Your task to perform on an android device: turn off priority inbox in the gmail app Image 0: 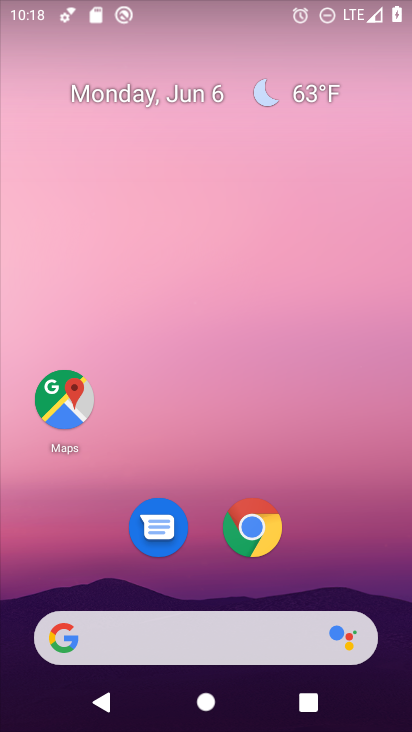
Step 0: drag from (367, 568) to (377, 233)
Your task to perform on an android device: turn off priority inbox in the gmail app Image 1: 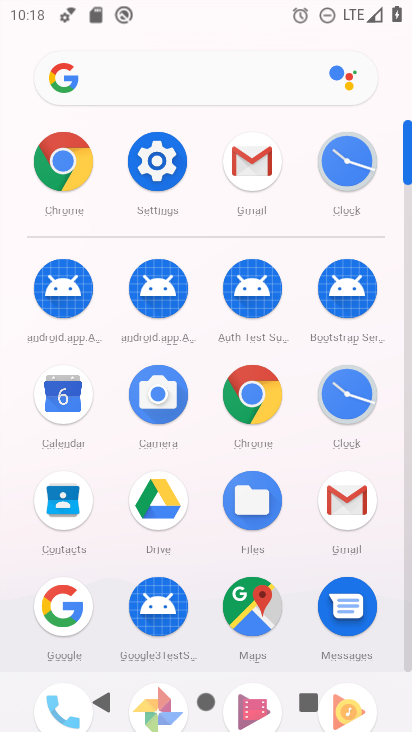
Step 1: click (342, 495)
Your task to perform on an android device: turn off priority inbox in the gmail app Image 2: 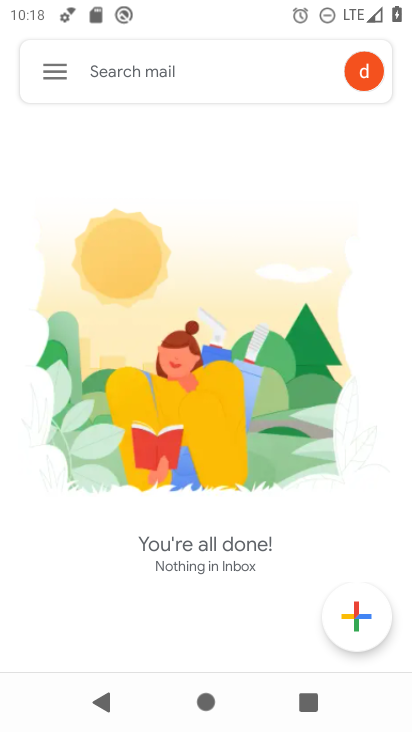
Step 2: click (59, 76)
Your task to perform on an android device: turn off priority inbox in the gmail app Image 3: 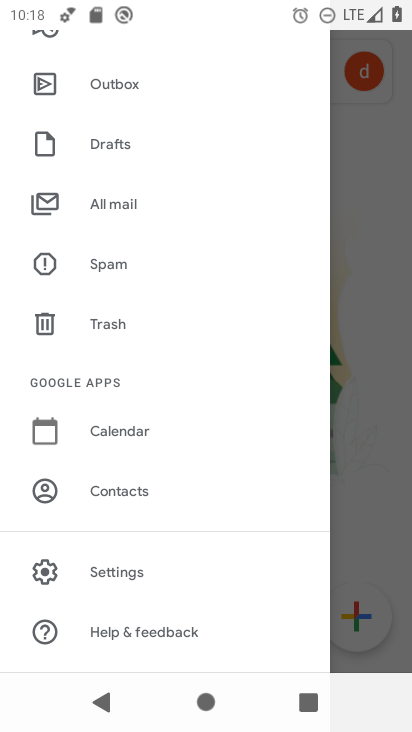
Step 3: drag from (245, 216) to (249, 300)
Your task to perform on an android device: turn off priority inbox in the gmail app Image 4: 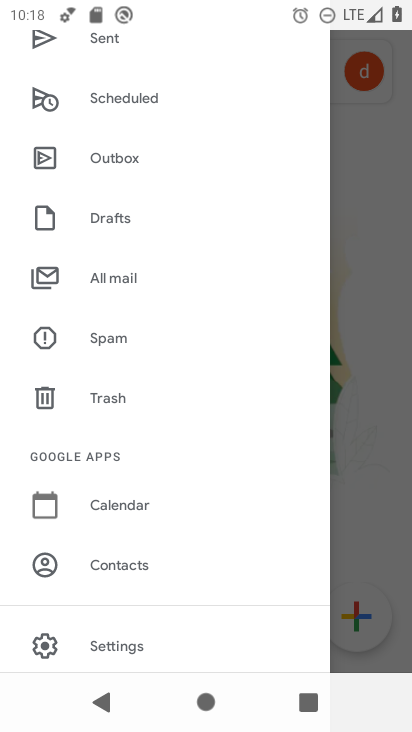
Step 4: drag from (256, 185) to (251, 284)
Your task to perform on an android device: turn off priority inbox in the gmail app Image 5: 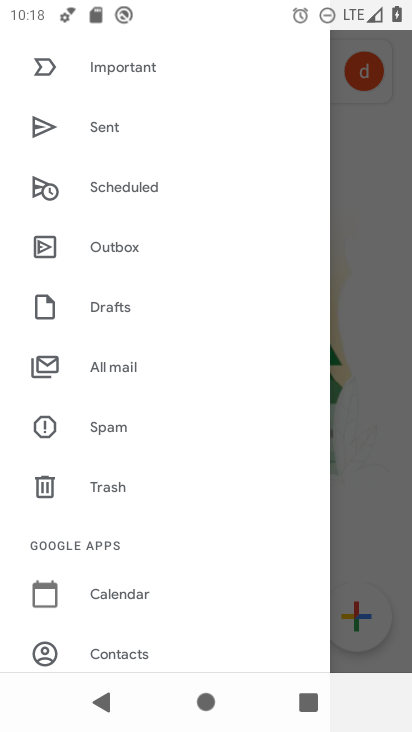
Step 5: drag from (242, 176) to (246, 279)
Your task to perform on an android device: turn off priority inbox in the gmail app Image 6: 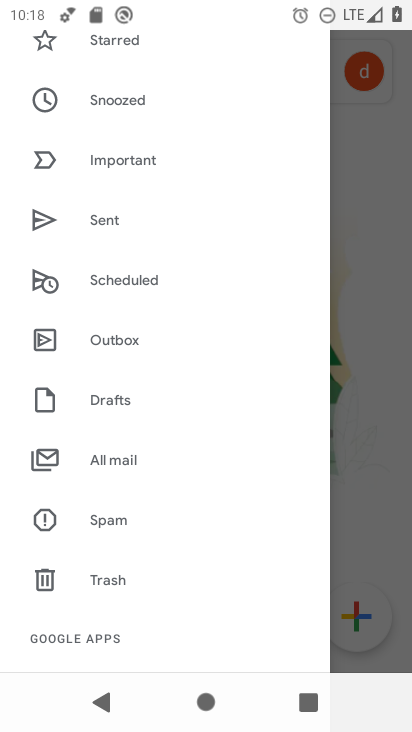
Step 6: drag from (260, 169) to (267, 334)
Your task to perform on an android device: turn off priority inbox in the gmail app Image 7: 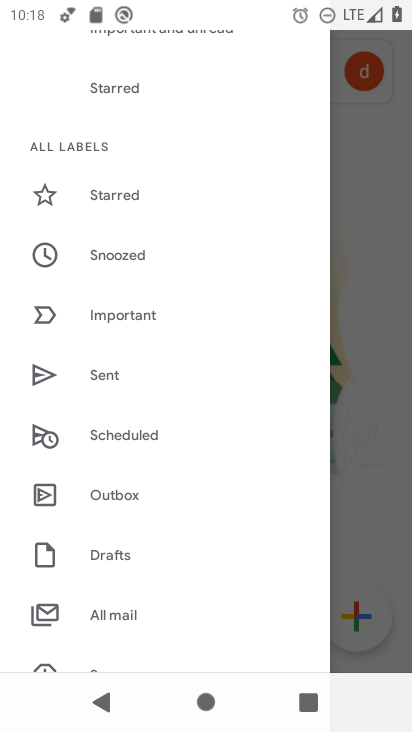
Step 7: drag from (254, 180) to (254, 287)
Your task to perform on an android device: turn off priority inbox in the gmail app Image 8: 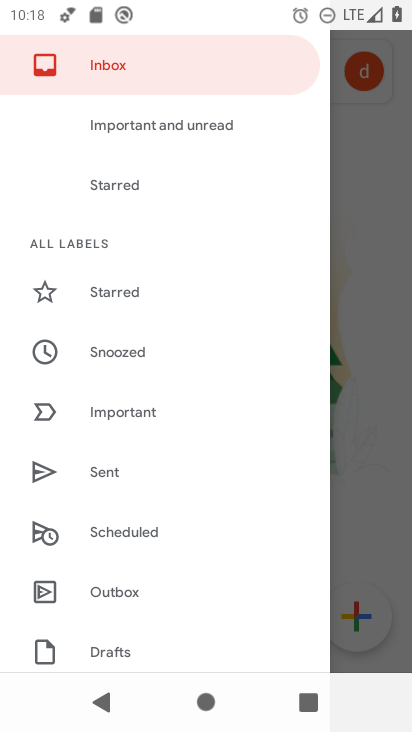
Step 8: drag from (243, 329) to (246, 244)
Your task to perform on an android device: turn off priority inbox in the gmail app Image 9: 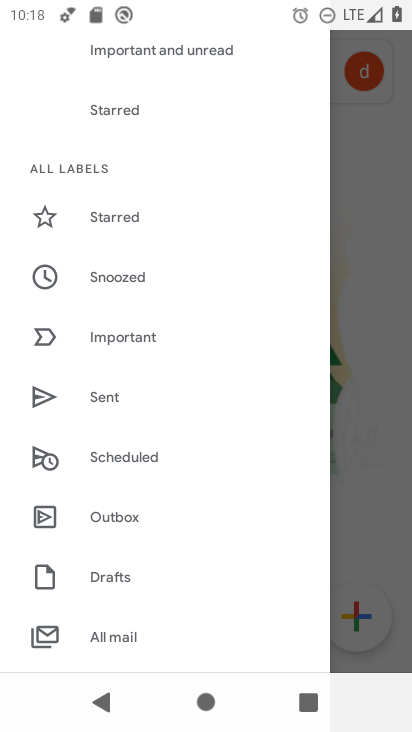
Step 9: drag from (258, 430) to (259, 293)
Your task to perform on an android device: turn off priority inbox in the gmail app Image 10: 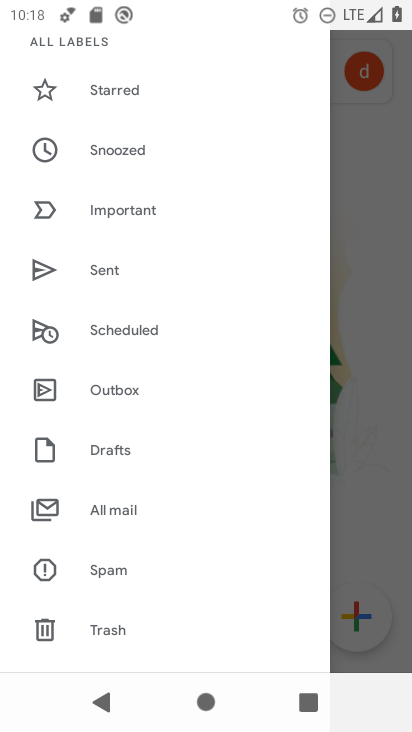
Step 10: drag from (254, 491) to (254, 335)
Your task to perform on an android device: turn off priority inbox in the gmail app Image 11: 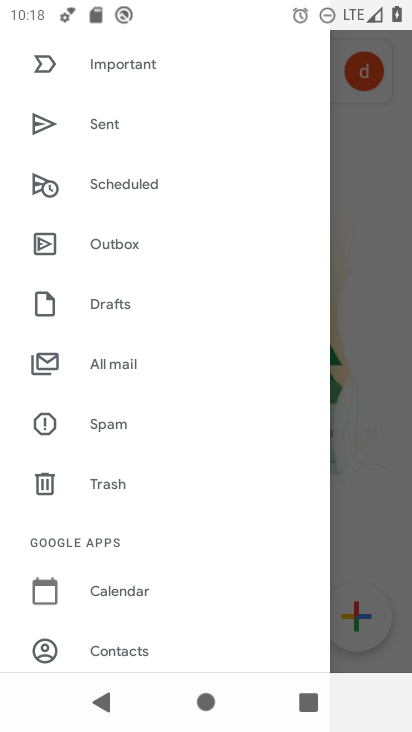
Step 11: drag from (251, 502) to (250, 373)
Your task to perform on an android device: turn off priority inbox in the gmail app Image 12: 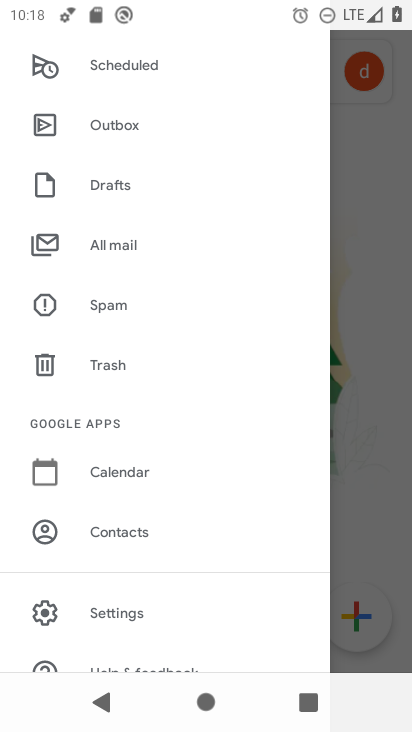
Step 12: drag from (249, 542) to (251, 395)
Your task to perform on an android device: turn off priority inbox in the gmail app Image 13: 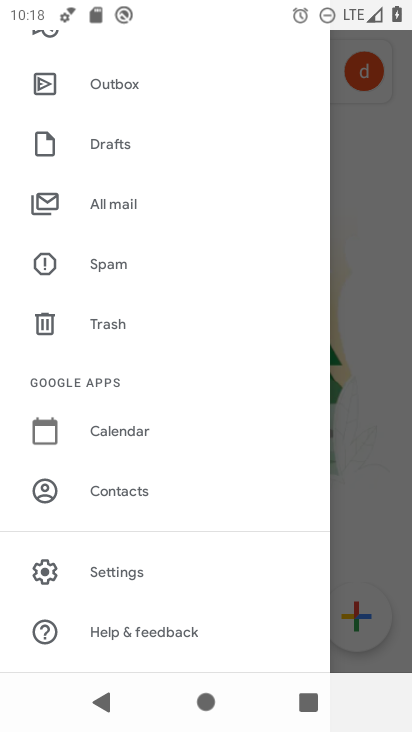
Step 13: click (196, 575)
Your task to perform on an android device: turn off priority inbox in the gmail app Image 14: 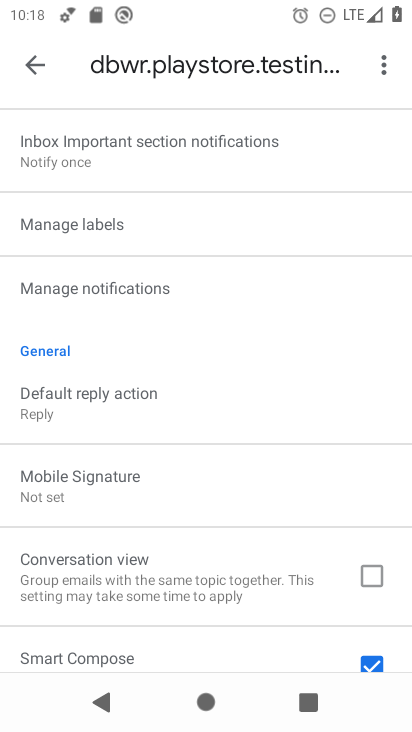
Step 14: drag from (283, 329) to (283, 404)
Your task to perform on an android device: turn off priority inbox in the gmail app Image 15: 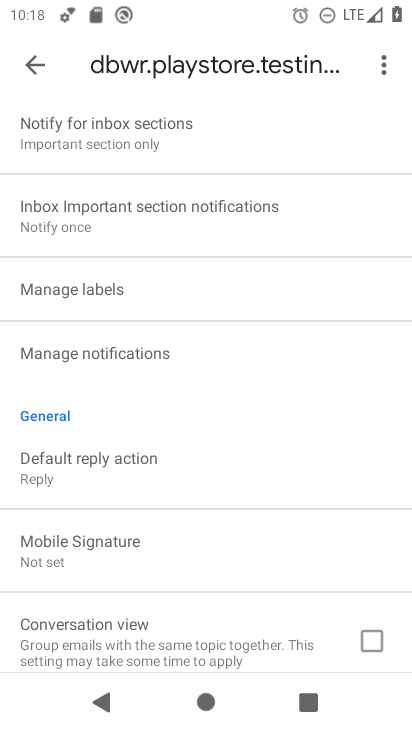
Step 15: drag from (286, 271) to (286, 381)
Your task to perform on an android device: turn off priority inbox in the gmail app Image 16: 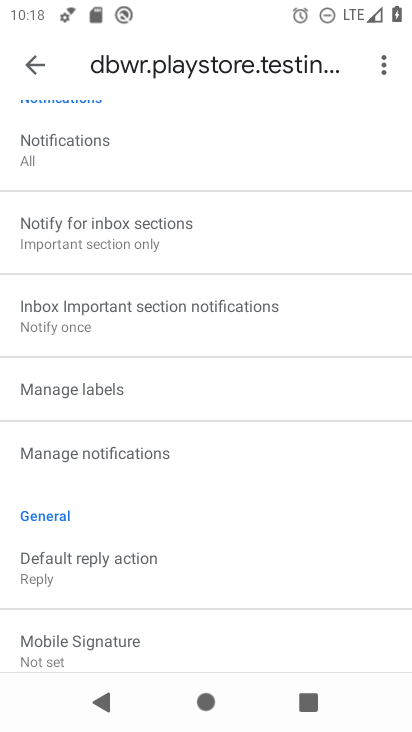
Step 16: drag from (286, 219) to (286, 385)
Your task to perform on an android device: turn off priority inbox in the gmail app Image 17: 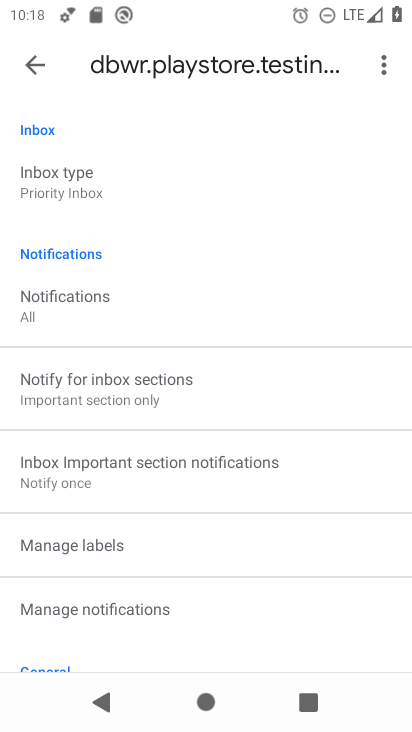
Step 17: drag from (287, 191) to (286, 329)
Your task to perform on an android device: turn off priority inbox in the gmail app Image 18: 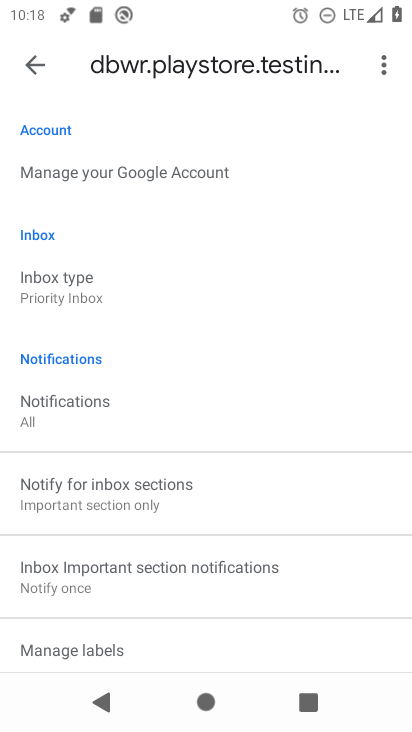
Step 18: drag from (306, 187) to (280, 345)
Your task to perform on an android device: turn off priority inbox in the gmail app Image 19: 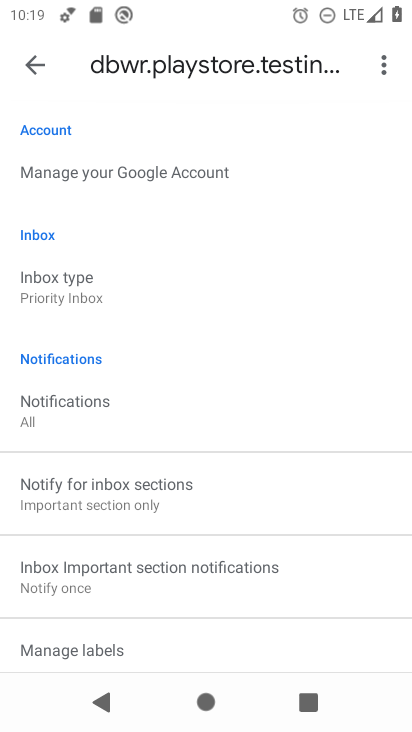
Step 19: click (44, 286)
Your task to perform on an android device: turn off priority inbox in the gmail app Image 20: 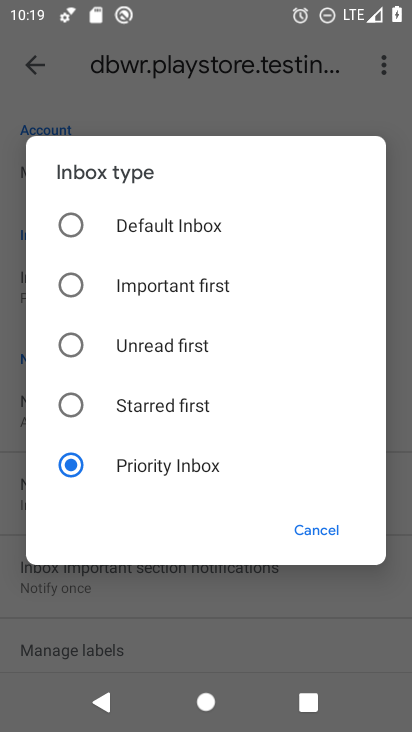
Step 20: click (128, 295)
Your task to perform on an android device: turn off priority inbox in the gmail app Image 21: 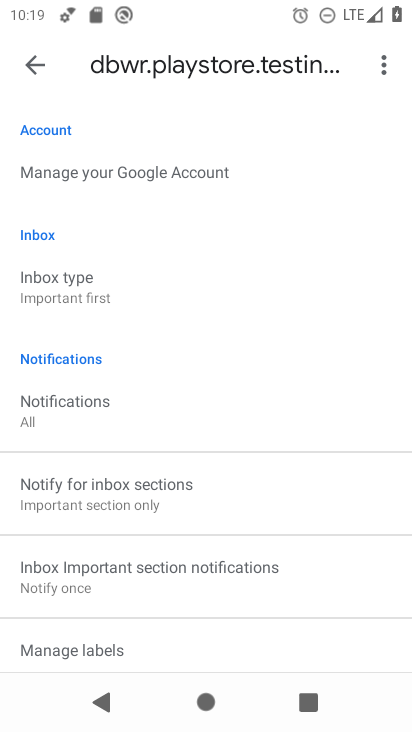
Step 21: task complete